Your task to perform on an android device: Go to Reddit.com Image 0: 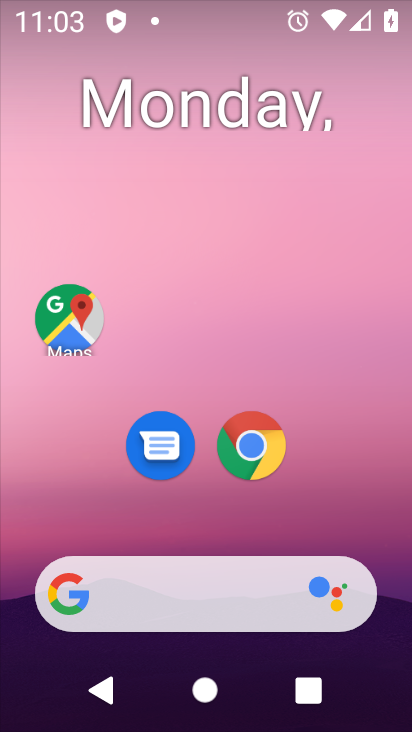
Step 0: click (256, 447)
Your task to perform on an android device: Go to Reddit.com Image 1: 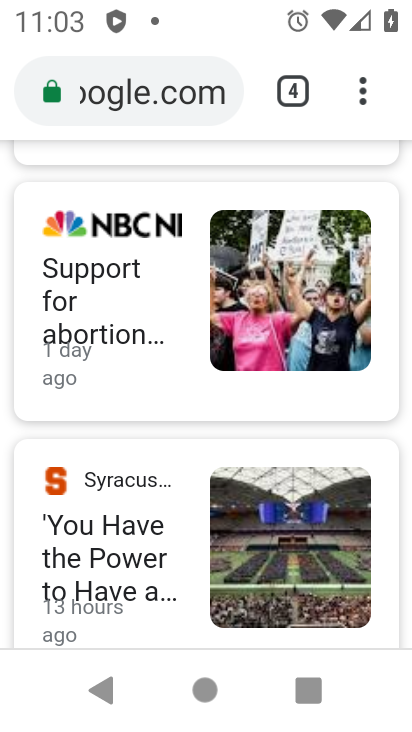
Step 1: click (296, 91)
Your task to perform on an android device: Go to Reddit.com Image 2: 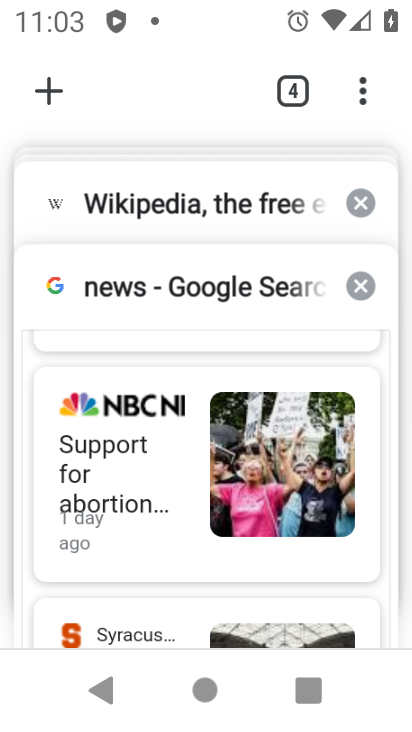
Step 2: click (43, 85)
Your task to perform on an android device: Go to Reddit.com Image 3: 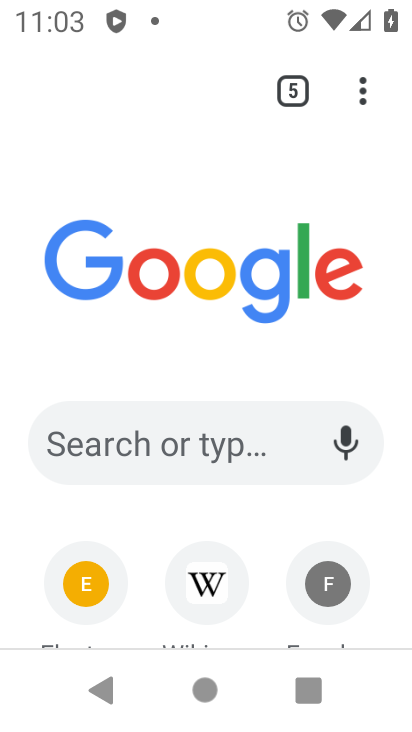
Step 3: click (112, 428)
Your task to perform on an android device: Go to Reddit.com Image 4: 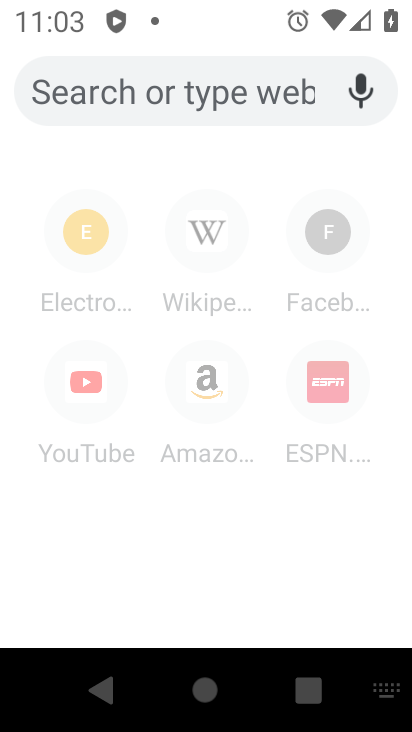
Step 4: type "reddit.com"
Your task to perform on an android device: Go to Reddit.com Image 5: 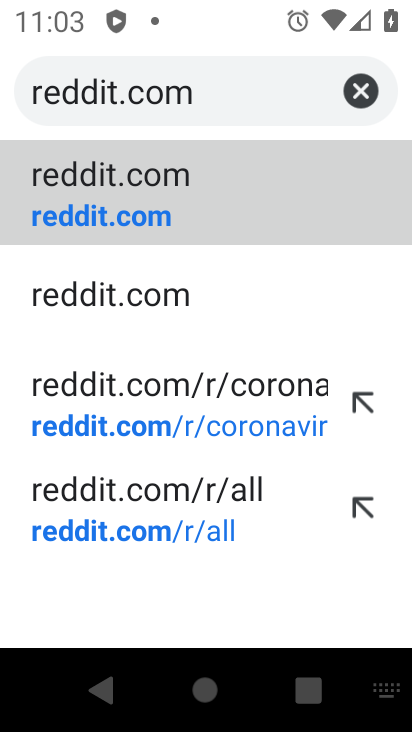
Step 5: click (44, 197)
Your task to perform on an android device: Go to Reddit.com Image 6: 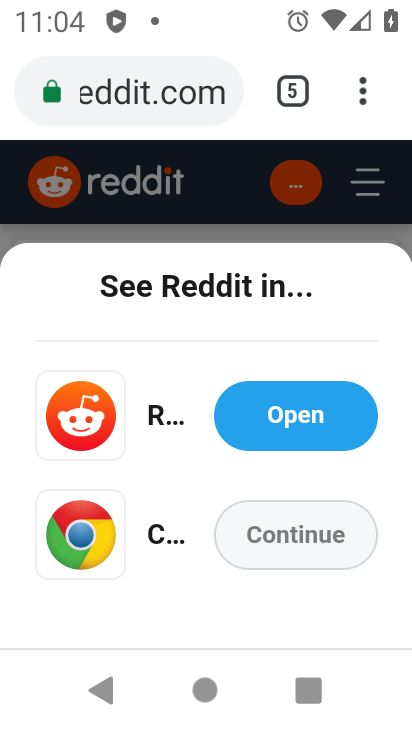
Step 6: click (262, 526)
Your task to perform on an android device: Go to Reddit.com Image 7: 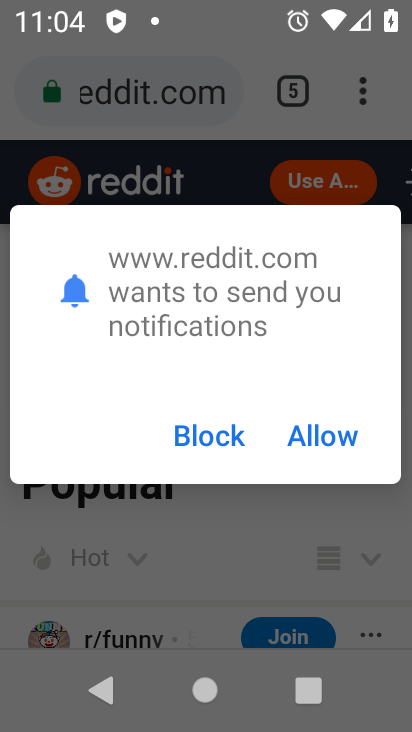
Step 7: click (321, 462)
Your task to perform on an android device: Go to Reddit.com Image 8: 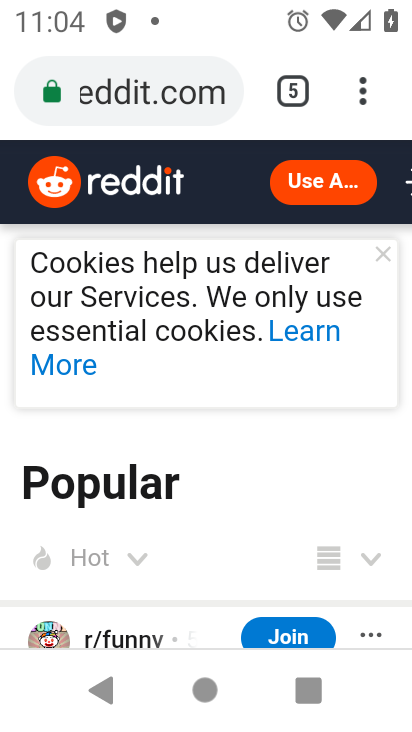
Step 8: task complete